Your task to perform on an android device: turn off javascript in the chrome app Image 0: 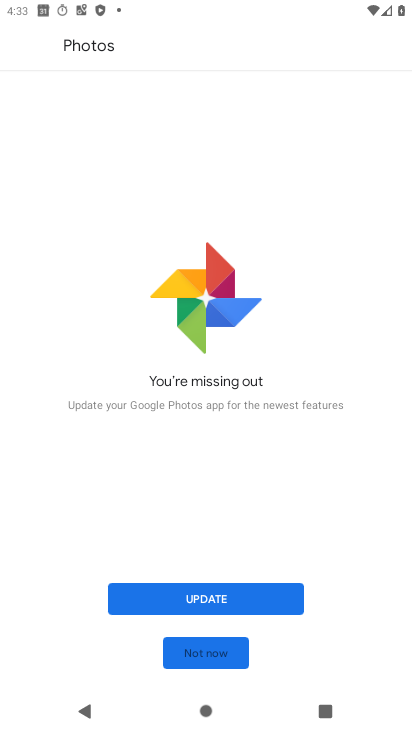
Step 0: press home button
Your task to perform on an android device: turn off javascript in the chrome app Image 1: 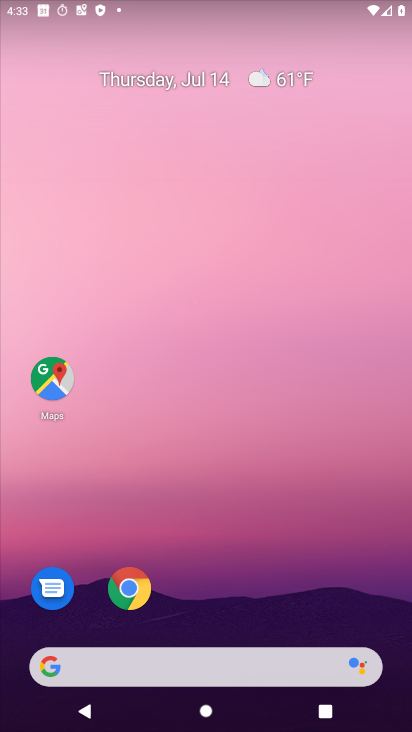
Step 1: click (128, 590)
Your task to perform on an android device: turn off javascript in the chrome app Image 2: 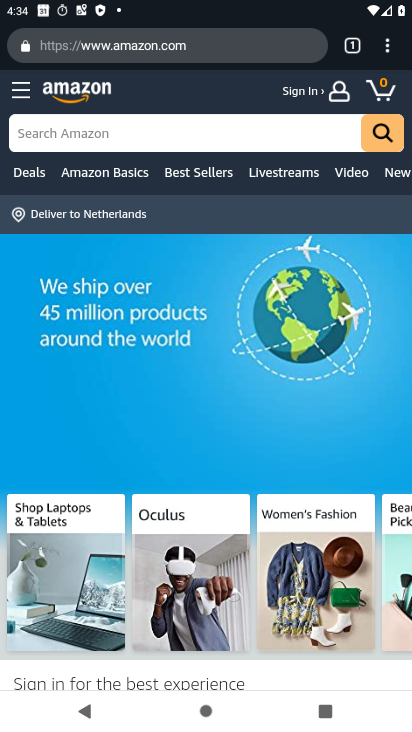
Step 2: click (388, 47)
Your task to perform on an android device: turn off javascript in the chrome app Image 3: 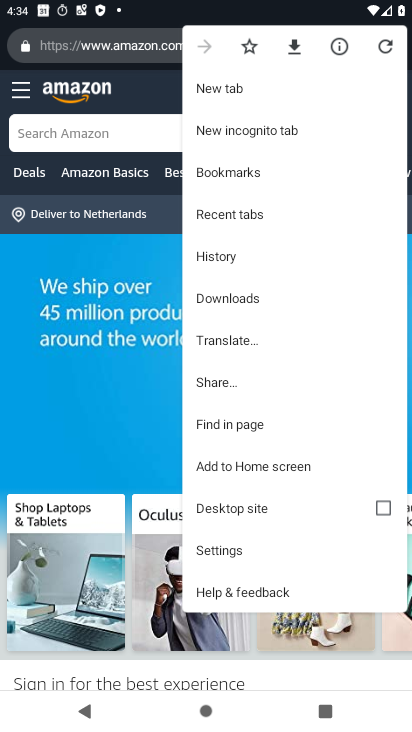
Step 3: click (223, 550)
Your task to perform on an android device: turn off javascript in the chrome app Image 4: 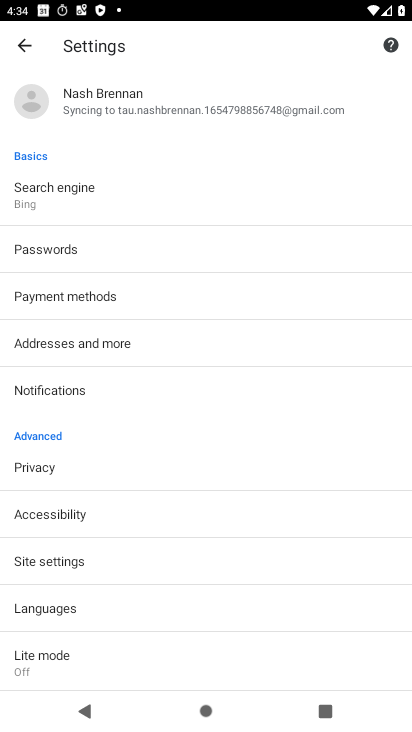
Step 4: click (57, 559)
Your task to perform on an android device: turn off javascript in the chrome app Image 5: 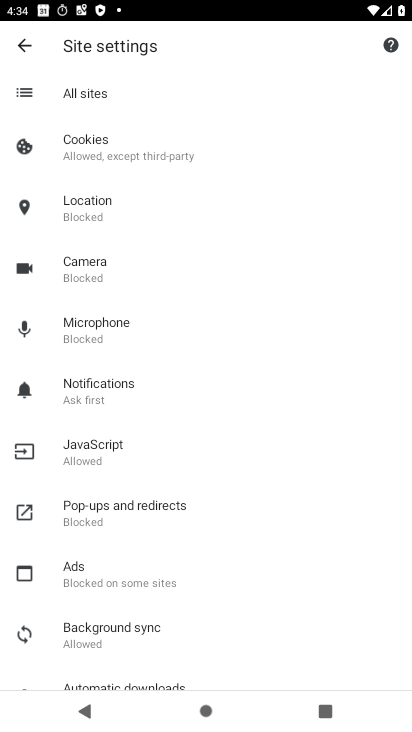
Step 5: click (81, 470)
Your task to perform on an android device: turn off javascript in the chrome app Image 6: 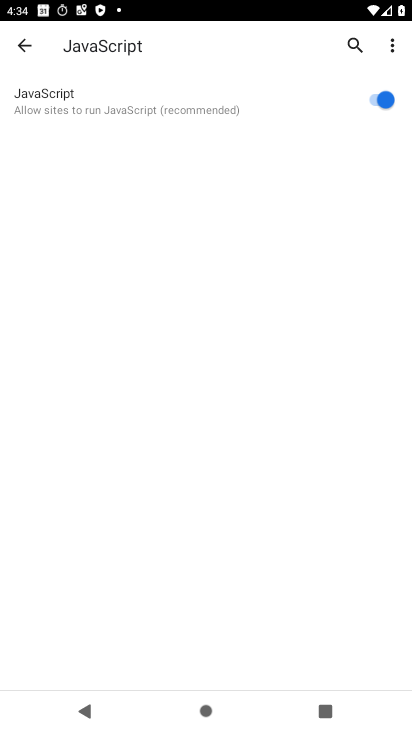
Step 6: click (388, 97)
Your task to perform on an android device: turn off javascript in the chrome app Image 7: 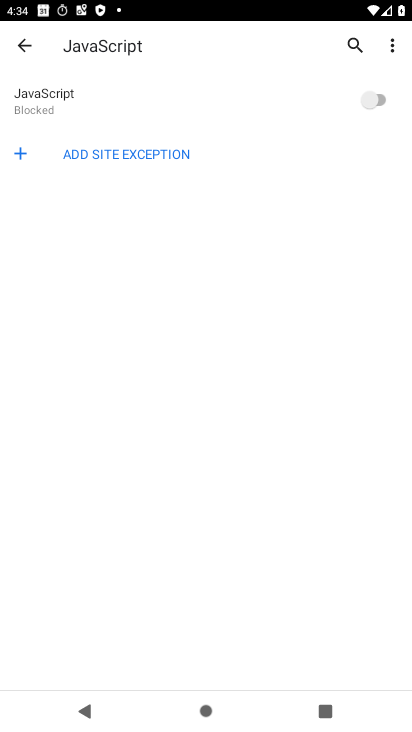
Step 7: task complete